Your task to perform on an android device: Open battery settings Image 0: 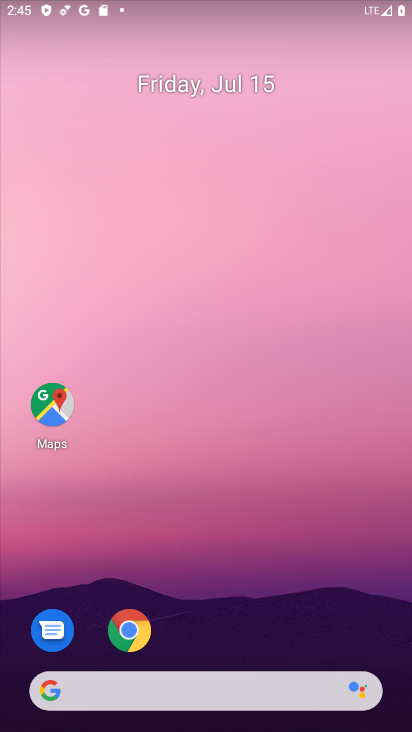
Step 0: drag from (179, 704) to (291, 194)
Your task to perform on an android device: Open battery settings Image 1: 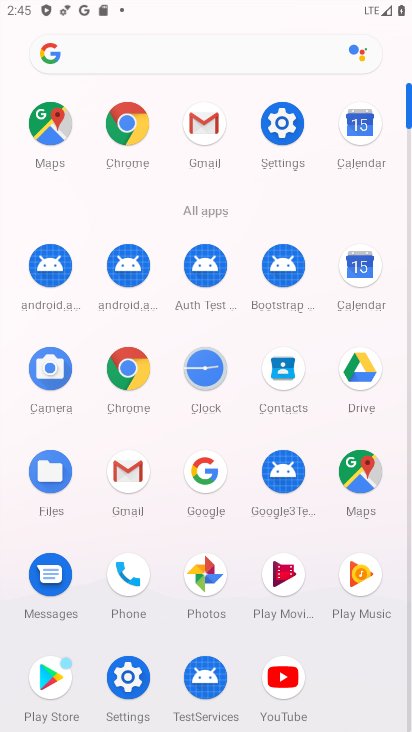
Step 1: click (284, 128)
Your task to perform on an android device: Open battery settings Image 2: 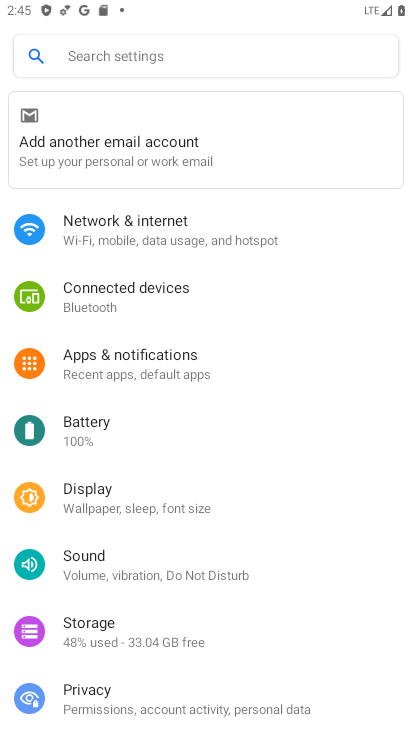
Step 2: click (124, 419)
Your task to perform on an android device: Open battery settings Image 3: 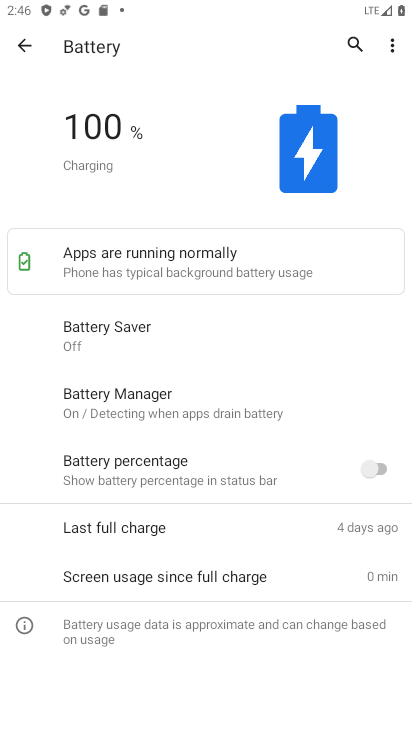
Step 3: task complete